Your task to perform on an android device: turn on showing notifications on the lock screen Image 0: 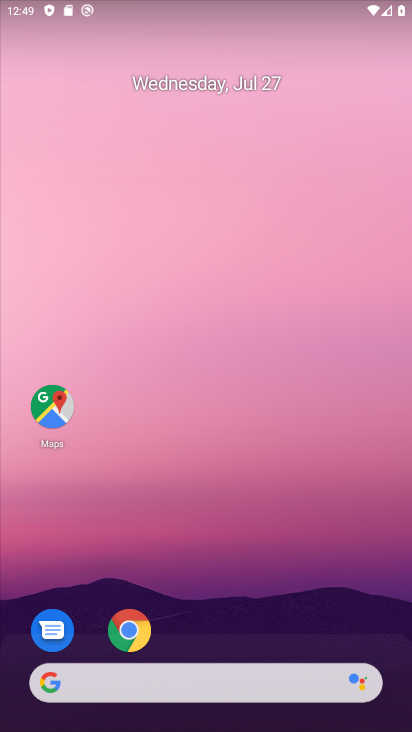
Step 0: drag from (200, 660) to (212, 1)
Your task to perform on an android device: turn on showing notifications on the lock screen Image 1: 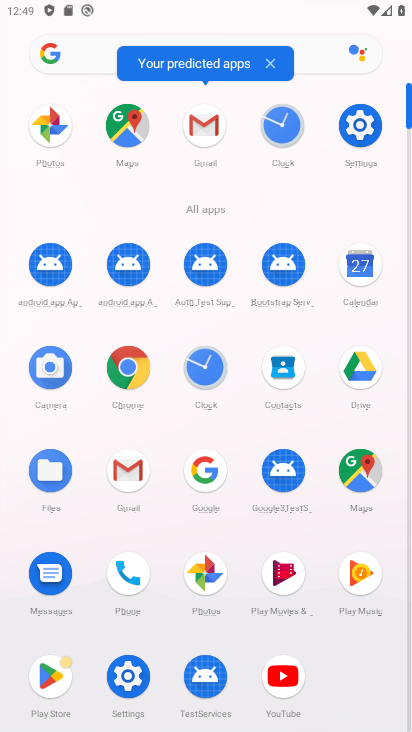
Step 1: click (360, 118)
Your task to perform on an android device: turn on showing notifications on the lock screen Image 2: 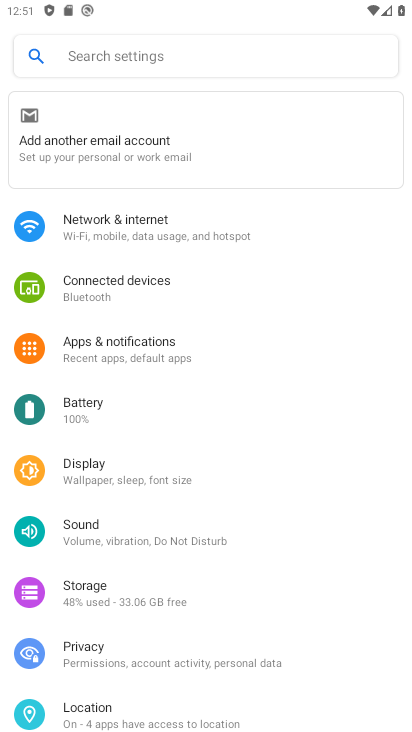
Step 2: click (168, 343)
Your task to perform on an android device: turn on showing notifications on the lock screen Image 3: 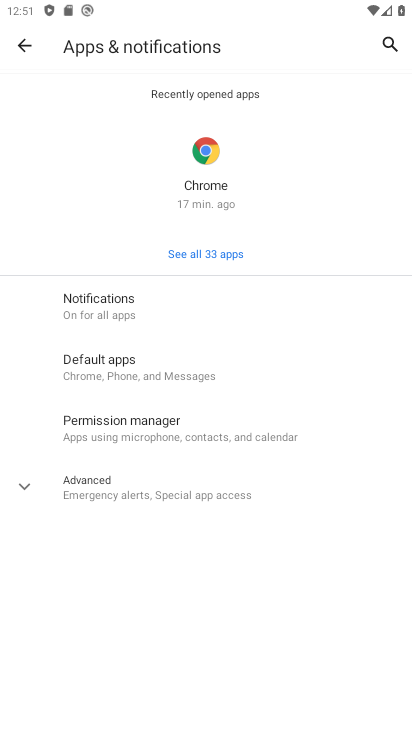
Step 3: click (96, 310)
Your task to perform on an android device: turn on showing notifications on the lock screen Image 4: 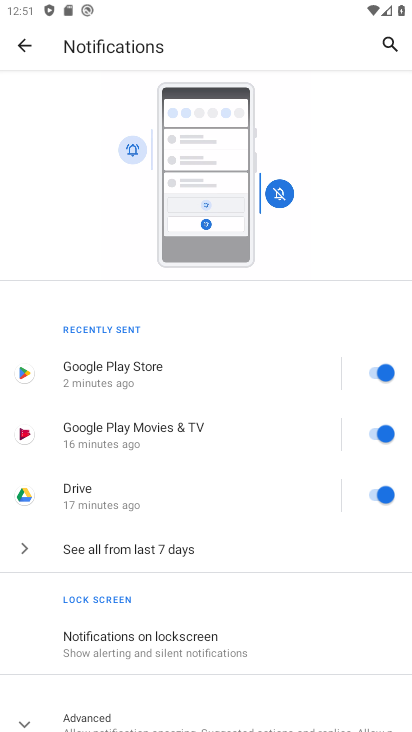
Step 4: click (199, 643)
Your task to perform on an android device: turn on showing notifications on the lock screen Image 5: 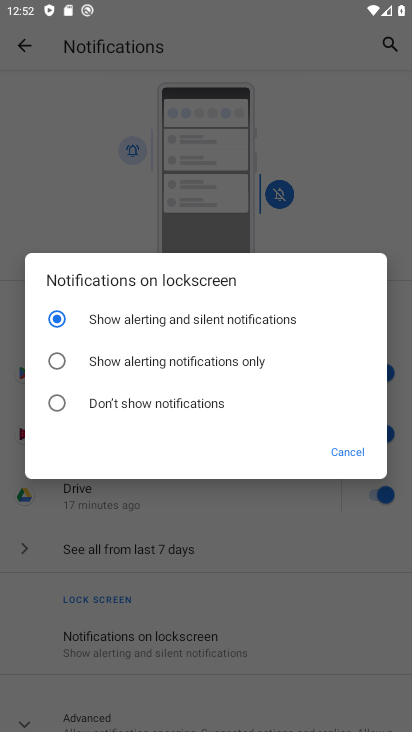
Step 5: task complete